Your task to perform on an android device: clear all cookies in the chrome app Image 0: 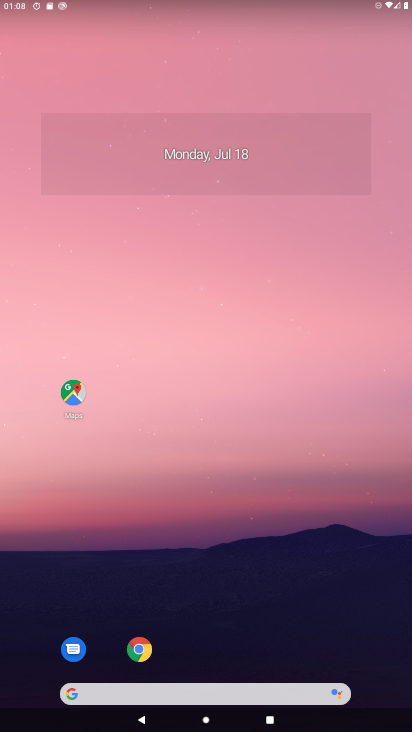
Step 0: click (150, 656)
Your task to perform on an android device: clear all cookies in the chrome app Image 1: 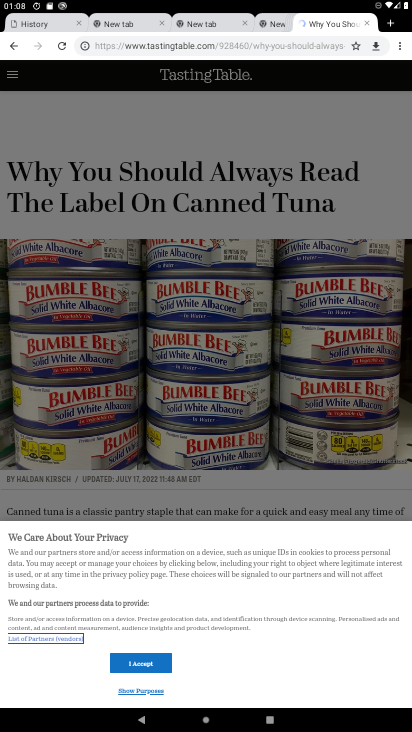
Step 1: click (396, 37)
Your task to perform on an android device: clear all cookies in the chrome app Image 2: 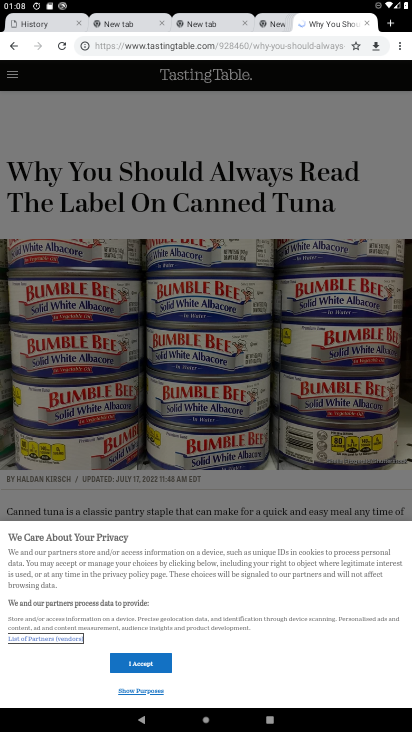
Step 2: click (396, 40)
Your task to perform on an android device: clear all cookies in the chrome app Image 3: 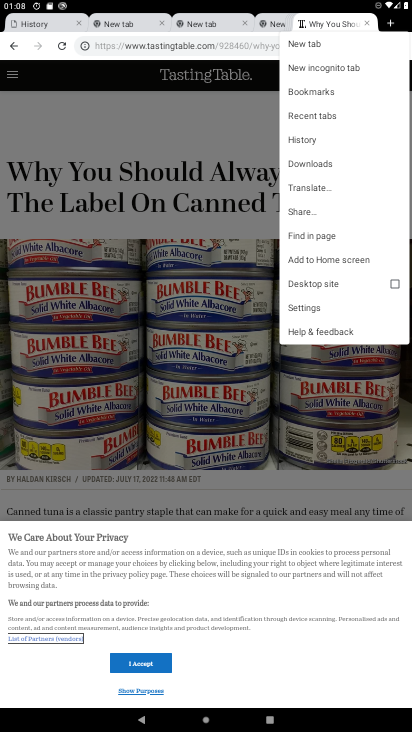
Step 3: click (310, 306)
Your task to perform on an android device: clear all cookies in the chrome app Image 4: 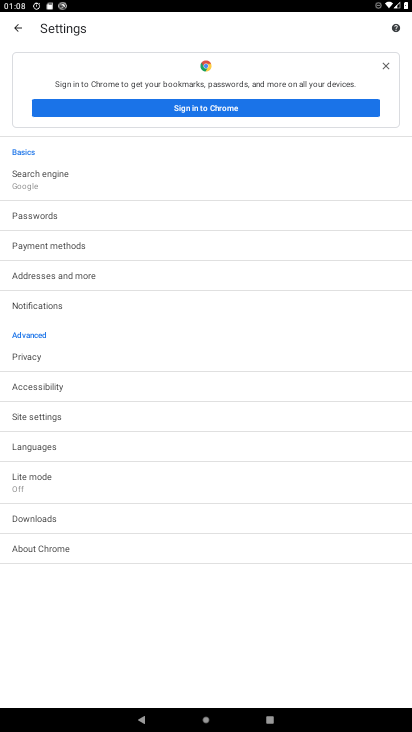
Step 4: click (67, 355)
Your task to perform on an android device: clear all cookies in the chrome app Image 5: 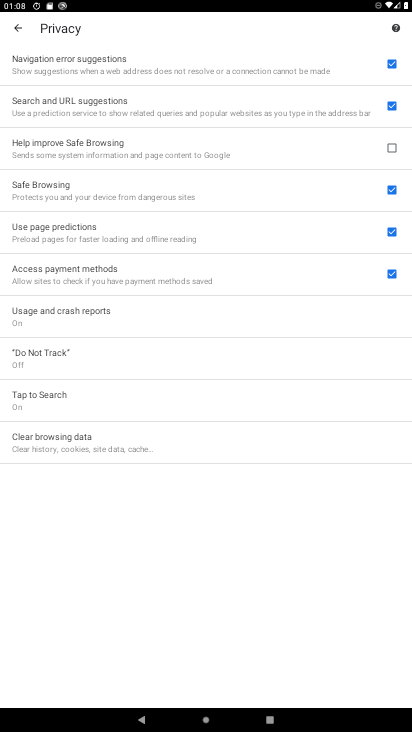
Step 5: click (20, 35)
Your task to perform on an android device: clear all cookies in the chrome app Image 6: 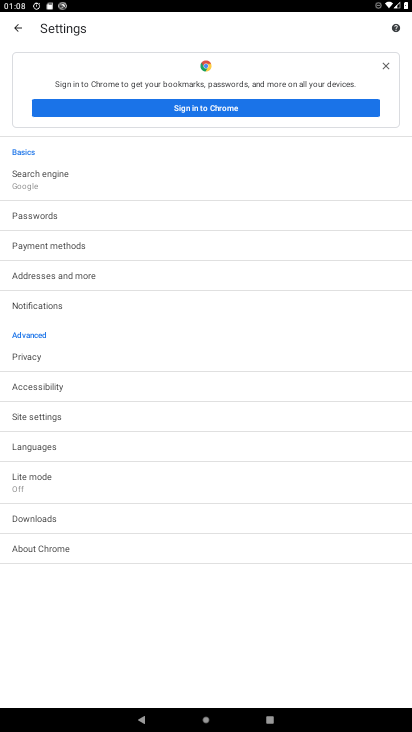
Step 6: click (42, 410)
Your task to perform on an android device: clear all cookies in the chrome app Image 7: 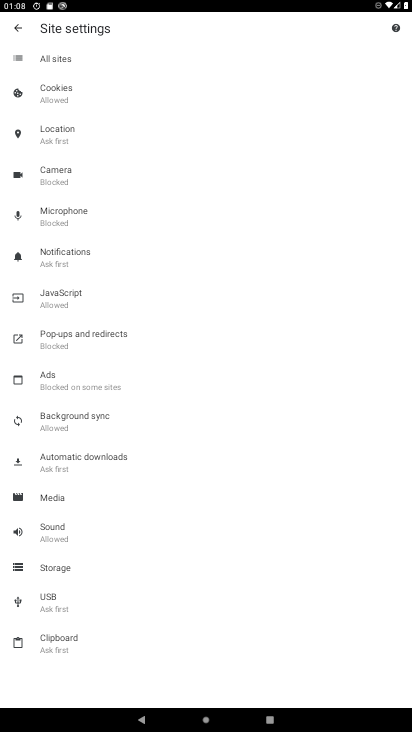
Step 7: click (81, 98)
Your task to perform on an android device: clear all cookies in the chrome app Image 8: 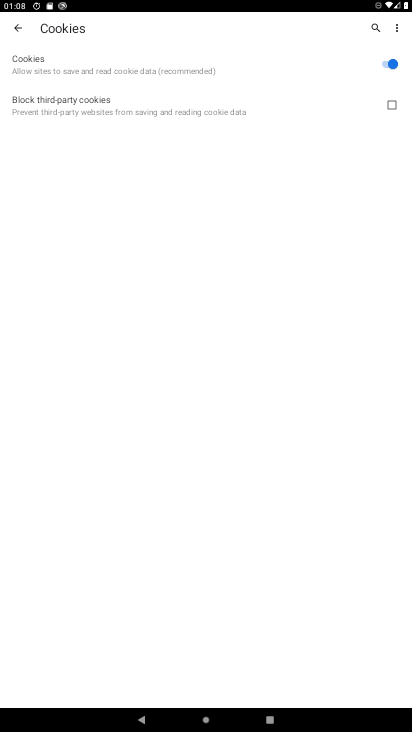
Step 8: task complete